Your task to perform on an android device: Open calendar and show me the third week of next month Image 0: 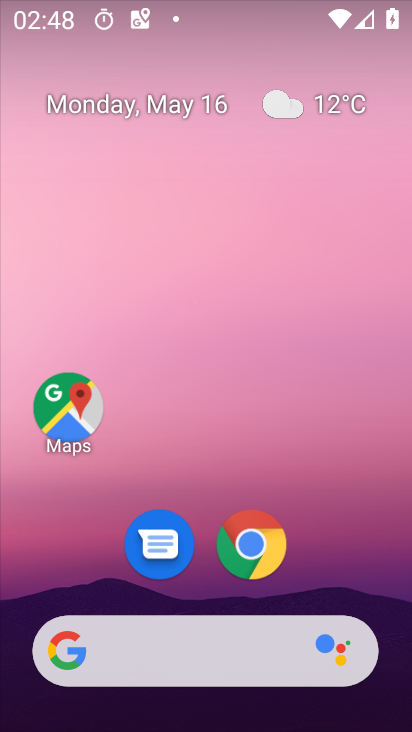
Step 0: drag from (215, 705) to (235, 183)
Your task to perform on an android device: Open calendar and show me the third week of next month Image 1: 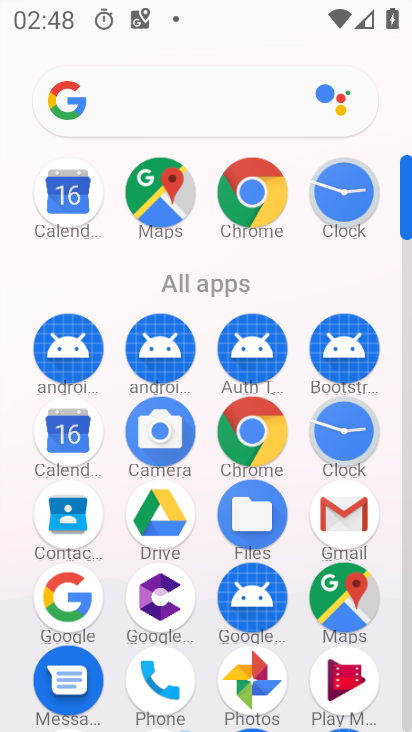
Step 1: click (68, 437)
Your task to perform on an android device: Open calendar and show me the third week of next month Image 2: 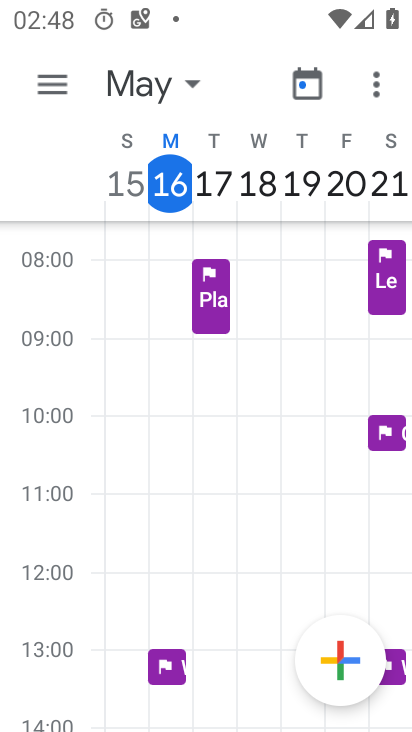
Step 2: click (192, 78)
Your task to perform on an android device: Open calendar and show me the third week of next month Image 3: 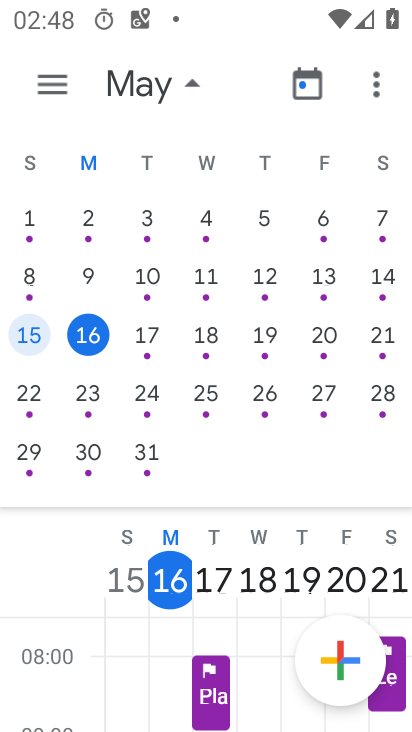
Step 3: drag from (386, 353) to (25, 371)
Your task to perform on an android device: Open calendar and show me the third week of next month Image 4: 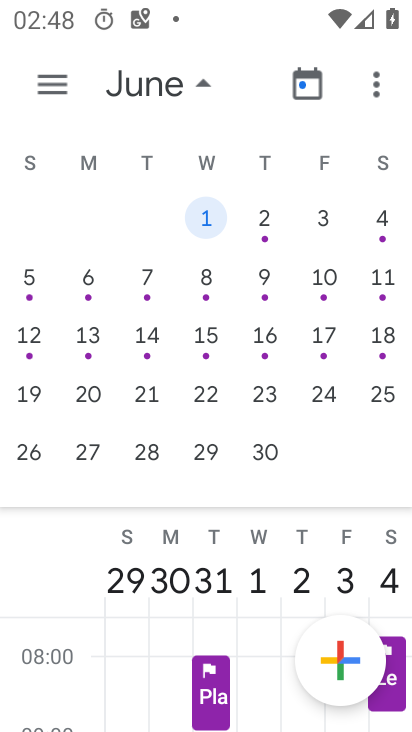
Step 4: click (90, 388)
Your task to perform on an android device: Open calendar and show me the third week of next month Image 5: 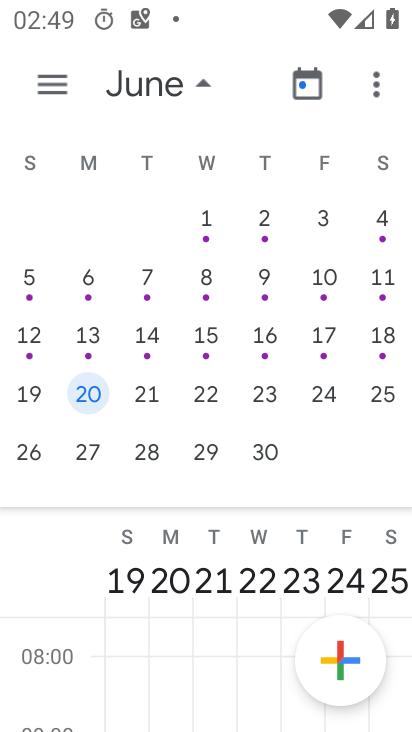
Step 5: task complete